Your task to perform on an android device: Go to eBay Image 0: 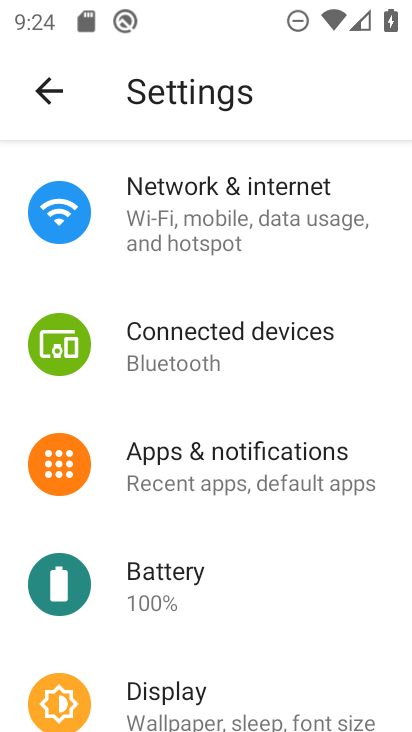
Step 0: press home button
Your task to perform on an android device: Go to eBay Image 1: 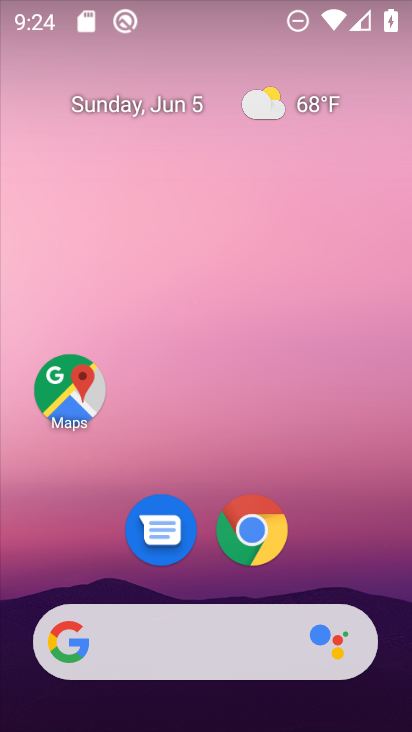
Step 1: click (253, 530)
Your task to perform on an android device: Go to eBay Image 2: 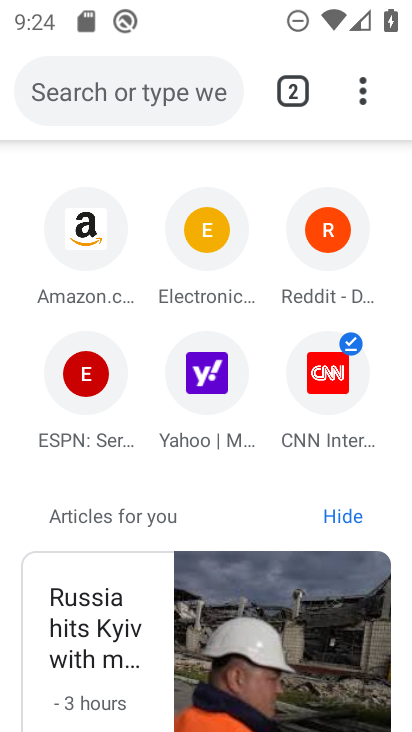
Step 2: click (134, 97)
Your task to perform on an android device: Go to eBay Image 3: 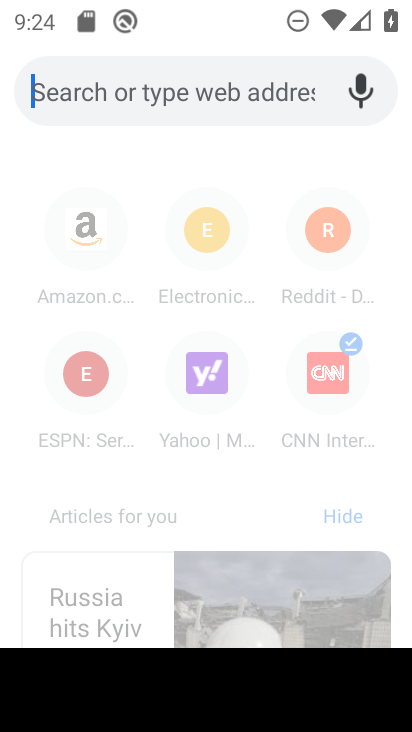
Step 3: type "ebay"
Your task to perform on an android device: Go to eBay Image 4: 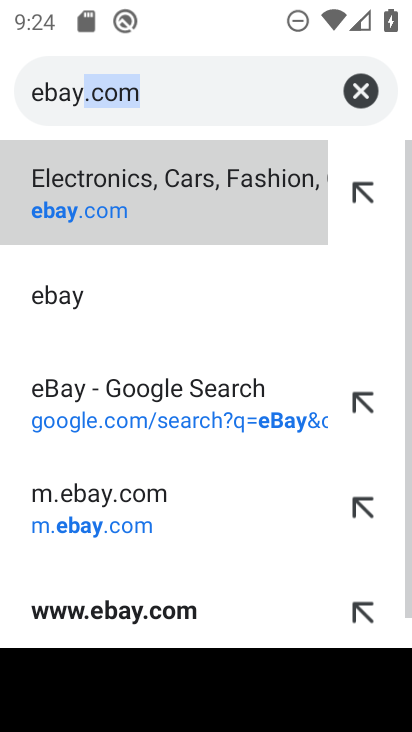
Step 4: click (127, 182)
Your task to perform on an android device: Go to eBay Image 5: 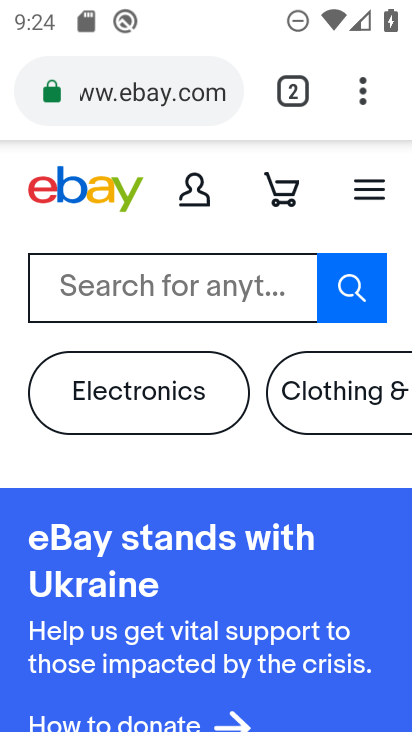
Step 5: task complete